Your task to perform on an android device: Is it going to rain tomorrow? Image 0: 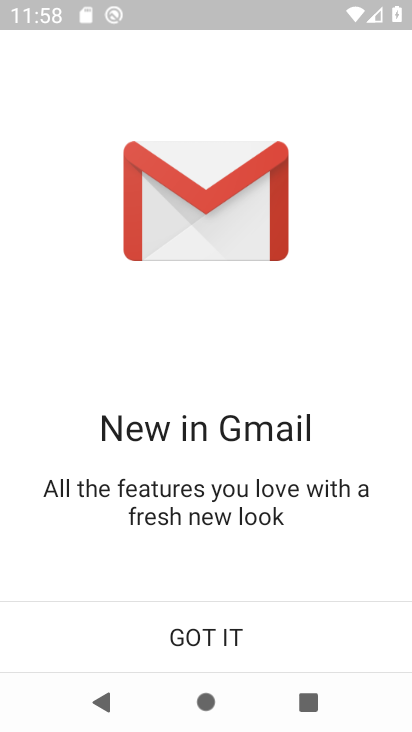
Step 0: press back button
Your task to perform on an android device: Is it going to rain tomorrow? Image 1: 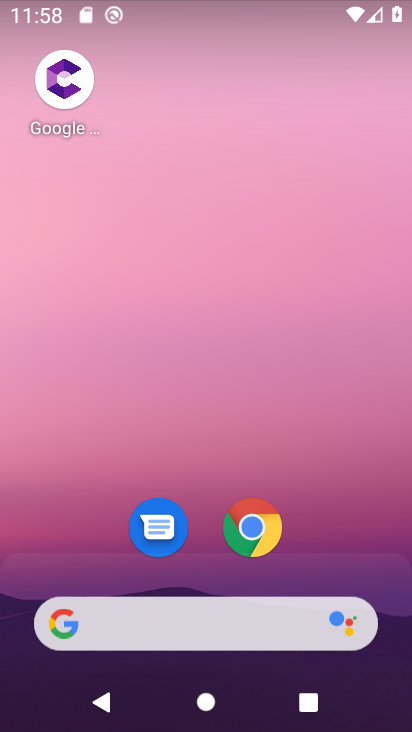
Step 1: click (190, 635)
Your task to perform on an android device: Is it going to rain tomorrow? Image 2: 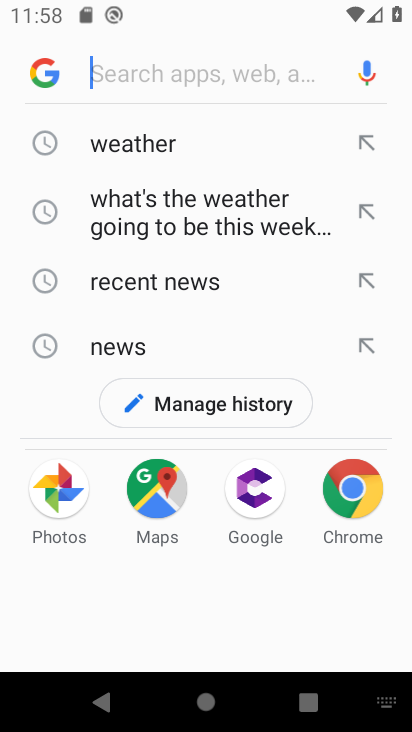
Step 2: click (133, 148)
Your task to perform on an android device: Is it going to rain tomorrow? Image 3: 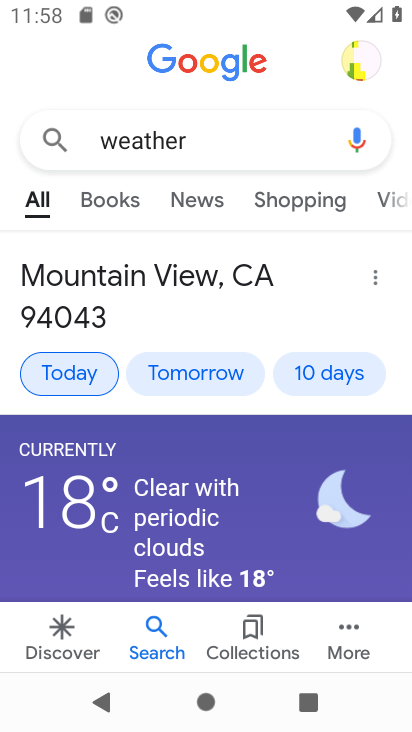
Step 3: click (157, 370)
Your task to perform on an android device: Is it going to rain tomorrow? Image 4: 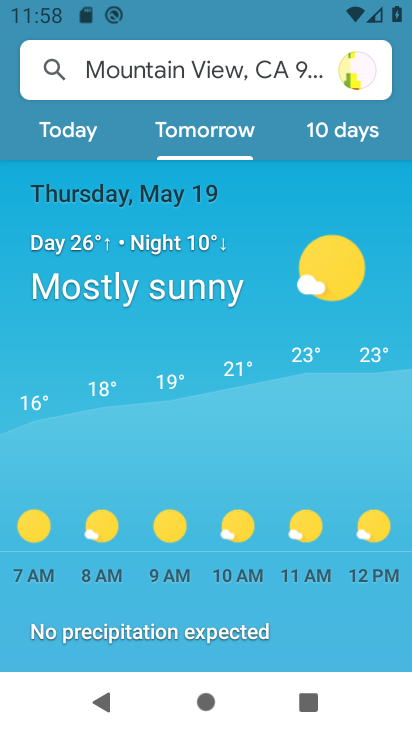
Step 4: task complete